Your task to perform on an android device: allow notifications from all sites in the chrome app Image 0: 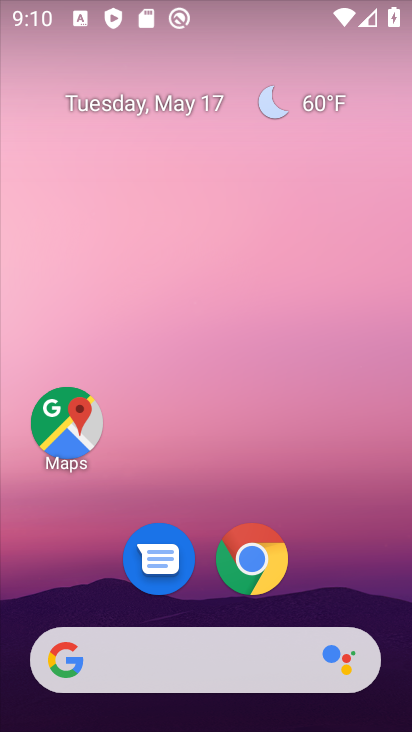
Step 0: drag from (195, 699) to (270, 222)
Your task to perform on an android device: allow notifications from all sites in the chrome app Image 1: 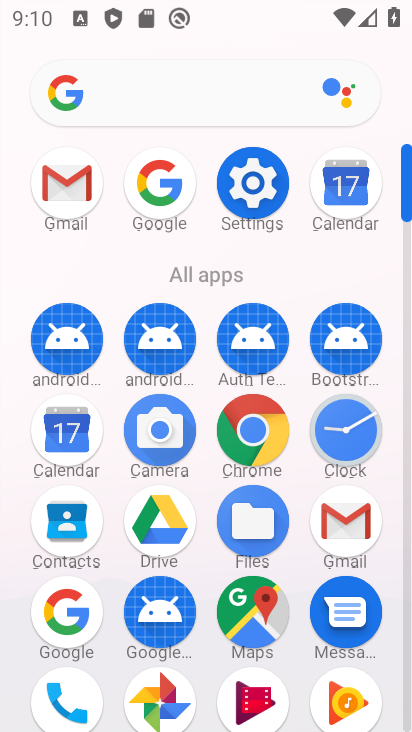
Step 1: click (260, 451)
Your task to perform on an android device: allow notifications from all sites in the chrome app Image 2: 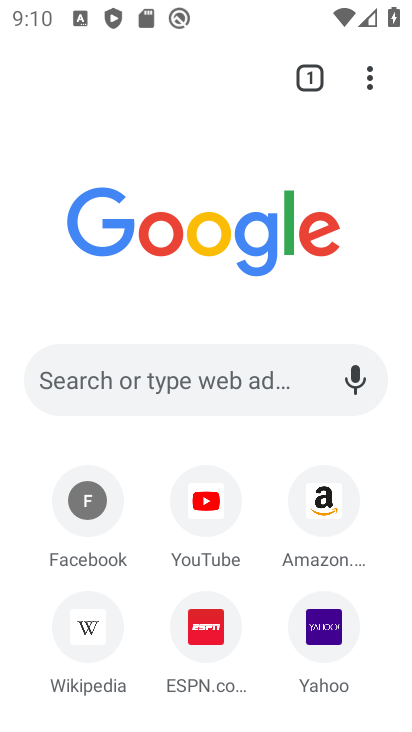
Step 2: click (366, 81)
Your task to perform on an android device: allow notifications from all sites in the chrome app Image 3: 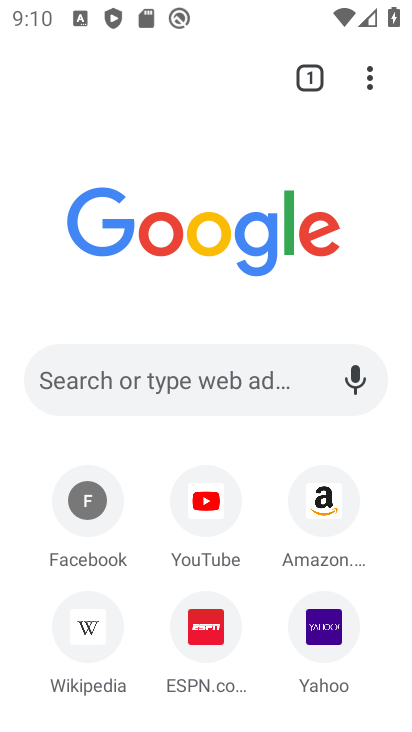
Step 3: click (371, 85)
Your task to perform on an android device: allow notifications from all sites in the chrome app Image 4: 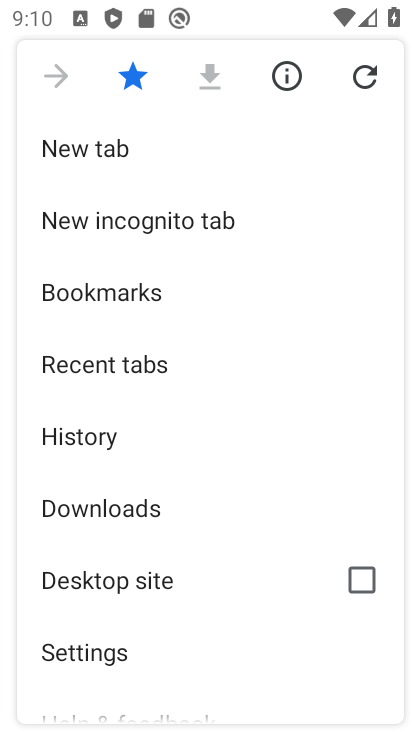
Step 4: drag from (139, 582) to (153, 223)
Your task to perform on an android device: allow notifications from all sites in the chrome app Image 5: 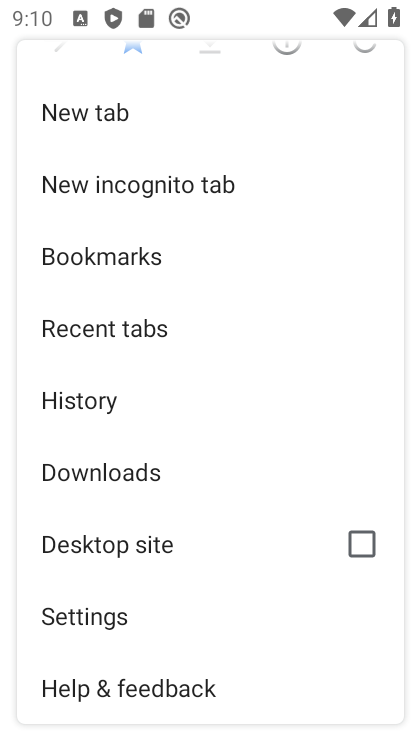
Step 5: click (89, 617)
Your task to perform on an android device: allow notifications from all sites in the chrome app Image 6: 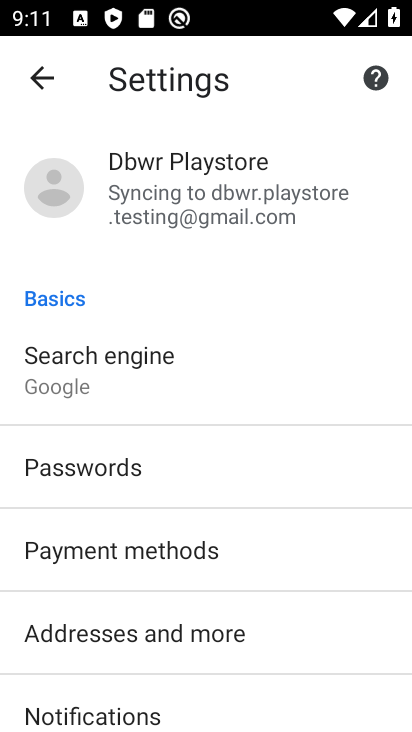
Step 6: click (150, 709)
Your task to perform on an android device: allow notifications from all sites in the chrome app Image 7: 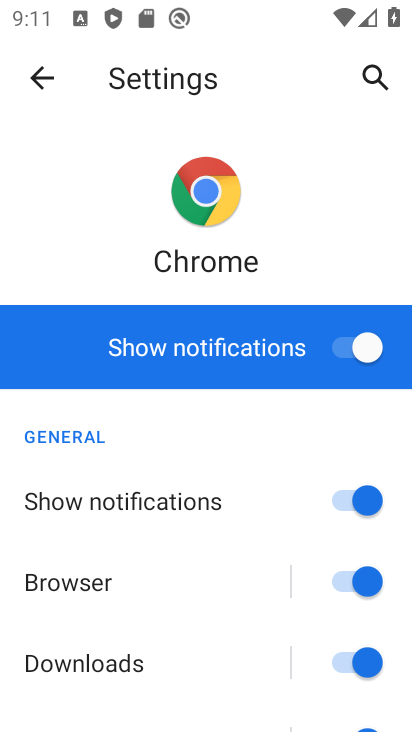
Step 7: task complete